Your task to perform on an android device: When is my next appointment? Image 0: 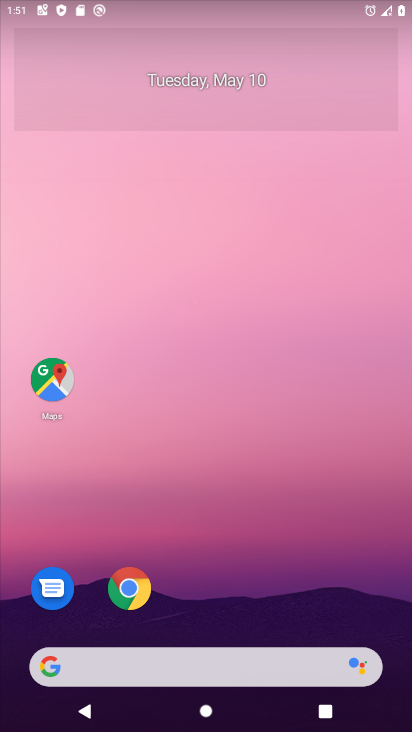
Step 0: drag from (259, 479) to (255, 319)
Your task to perform on an android device: When is my next appointment? Image 1: 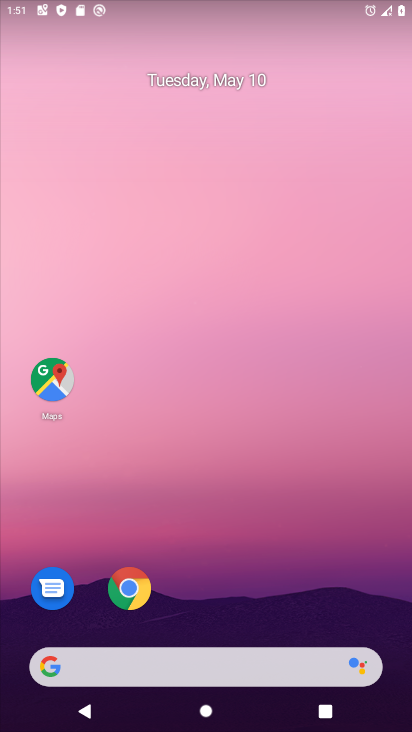
Step 1: drag from (298, 599) to (281, 223)
Your task to perform on an android device: When is my next appointment? Image 2: 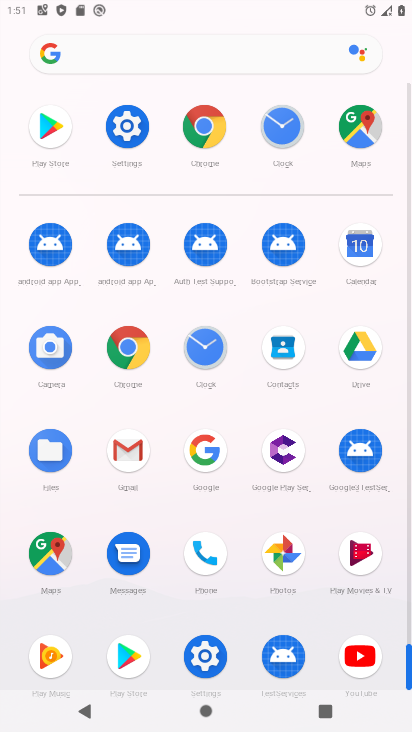
Step 2: click (368, 238)
Your task to perform on an android device: When is my next appointment? Image 3: 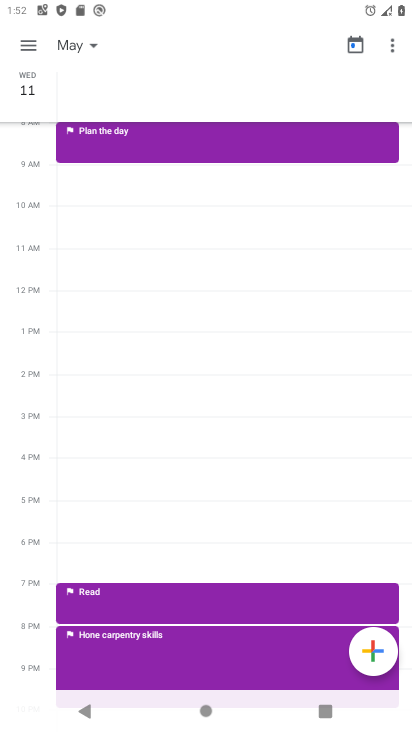
Step 3: click (28, 43)
Your task to perform on an android device: When is my next appointment? Image 4: 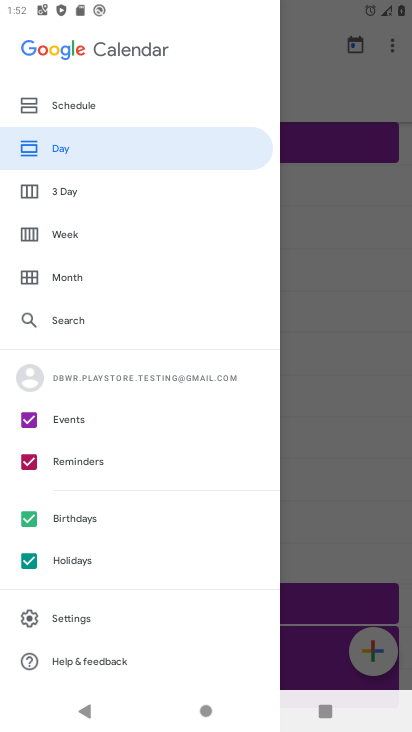
Step 4: click (64, 280)
Your task to perform on an android device: When is my next appointment? Image 5: 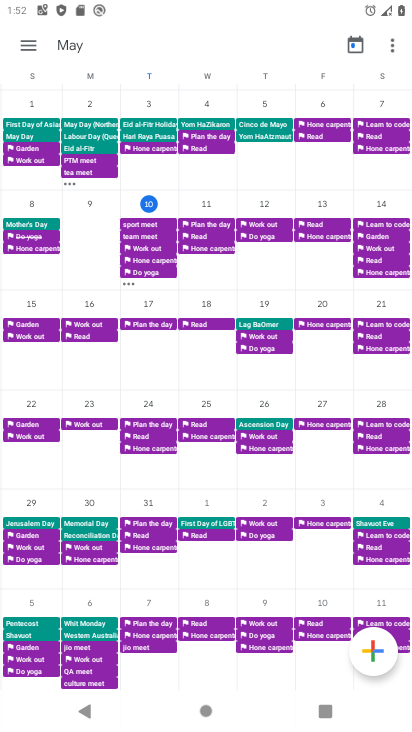
Step 5: click (208, 205)
Your task to perform on an android device: When is my next appointment? Image 6: 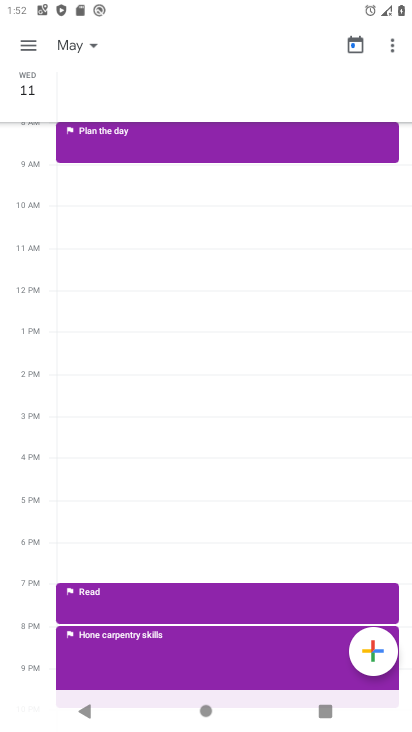
Step 6: task complete